Your task to perform on an android device: toggle airplane mode Image 0: 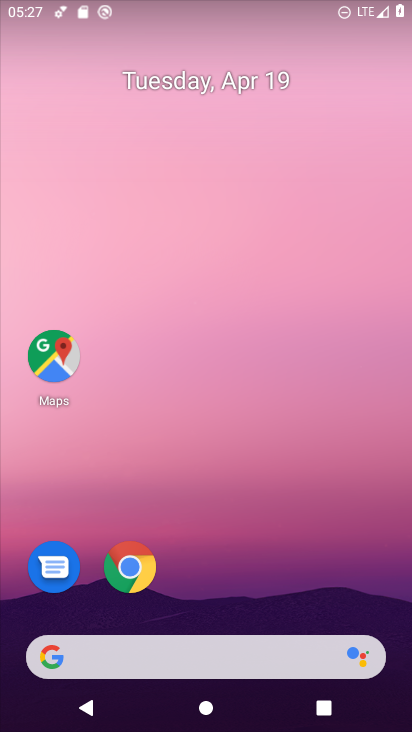
Step 0: drag from (224, 630) to (322, 8)
Your task to perform on an android device: toggle airplane mode Image 1: 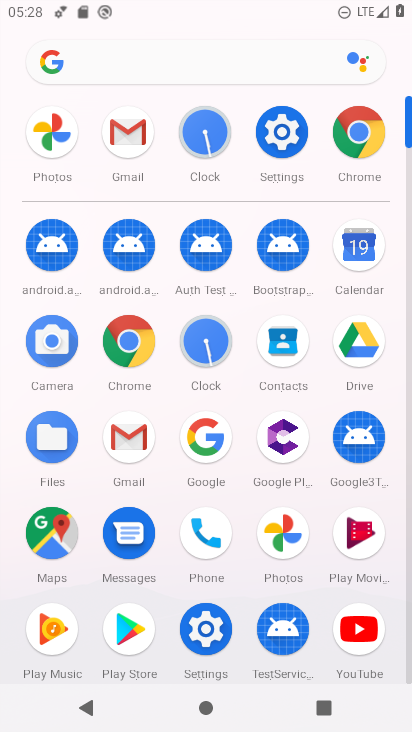
Step 1: click (186, 627)
Your task to perform on an android device: toggle airplane mode Image 2: 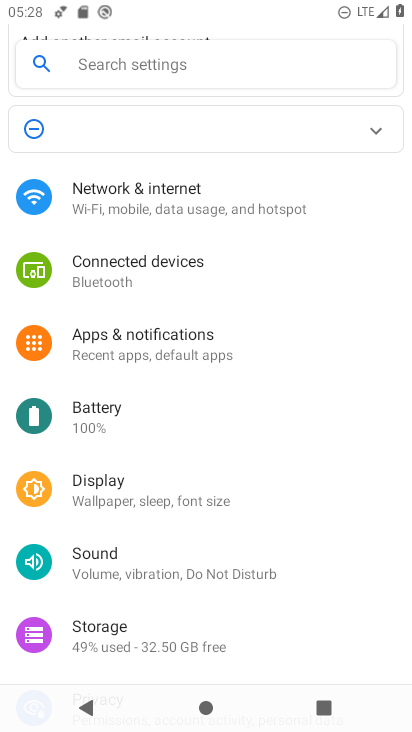
Step 2: click (135, 200)
Your task to perform on an android device: toggle airplane mode Image 3: 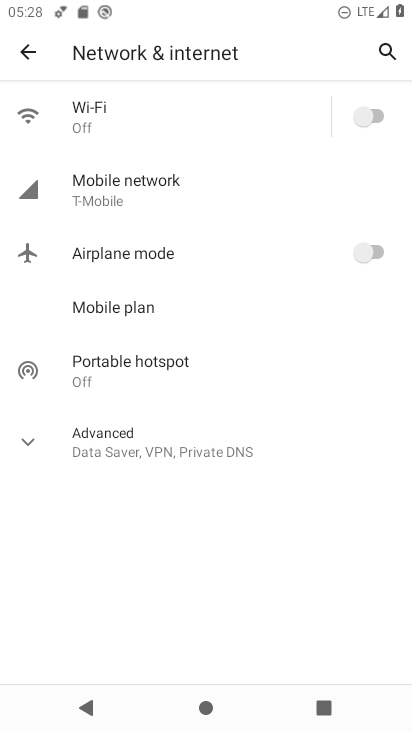
Step 3: click (375, 247)
Your task to perform on an android device: toggle airplane mode Image 4: 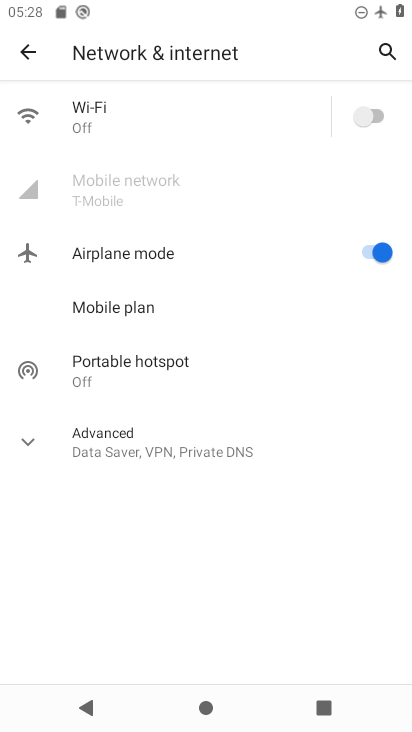
Step 4: task complete